Your task to perform on an android device: toggle pop-ups in chrome Image 0: 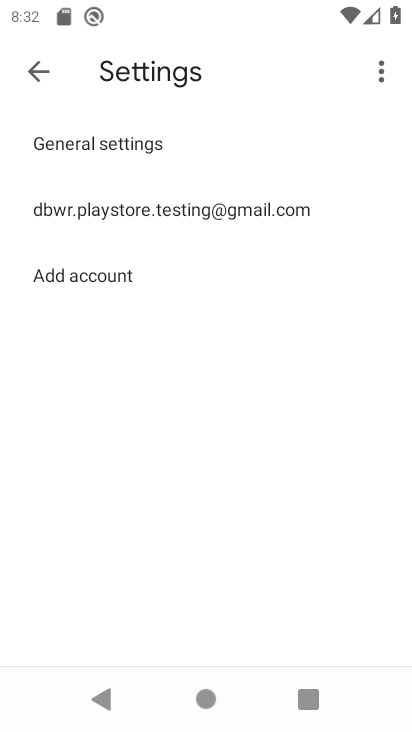
Step 0: drag from (166, 547) to (291, 218)
Your task to perform on an android device: toggle pop-ups in chrome Image 1: 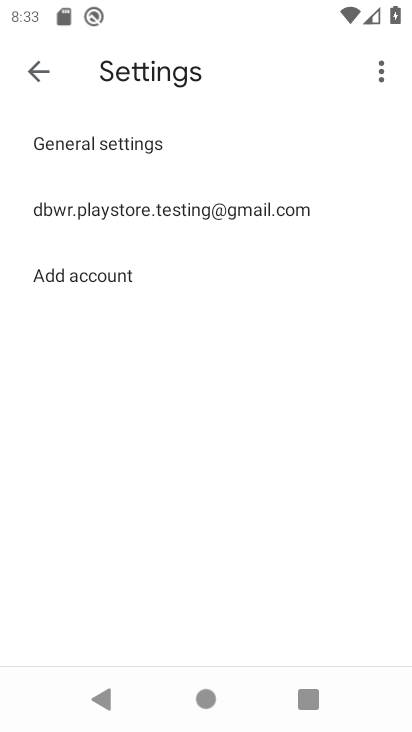
Step 1: press home button
Your task to perform on an android device: toggle pop-ups in chrome Image 2: 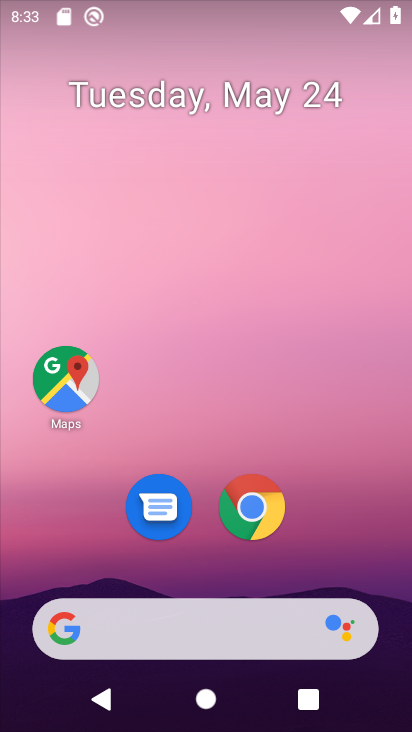
Step 2: drag from (203, 574) to (155, 152)
Your task to perform on an android device: toggle pop-ups in chrome Image 3: 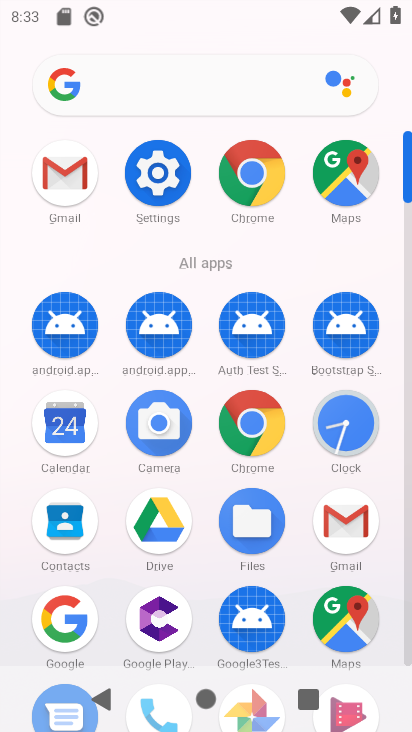
Step 3: click (255, 433)
Your task to perform on an android device: toggle pop-ups in chrome Image 4: 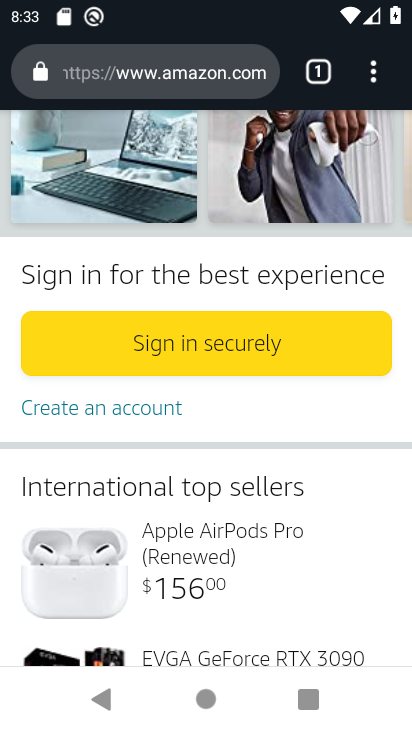
Step 4: drag from (176, 560) to (262, 170)
Your task to perform on an android device: toggle pop-ups in chrome Image 5: 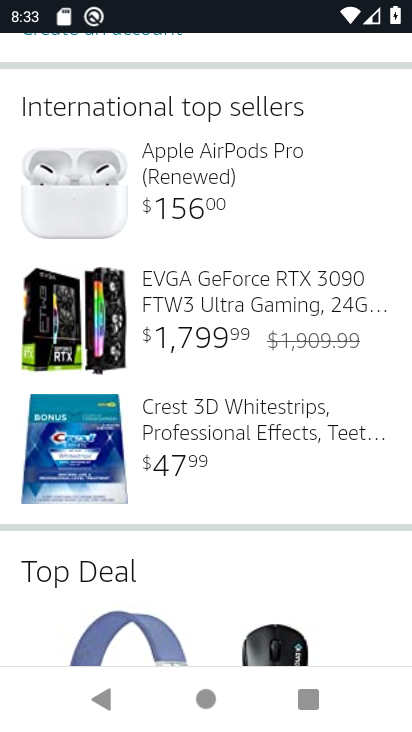
Step 5: drag from (222, 530) to (310, 17)
Your task to perform on an android device: toggle pop-ups in chrome Image 6: 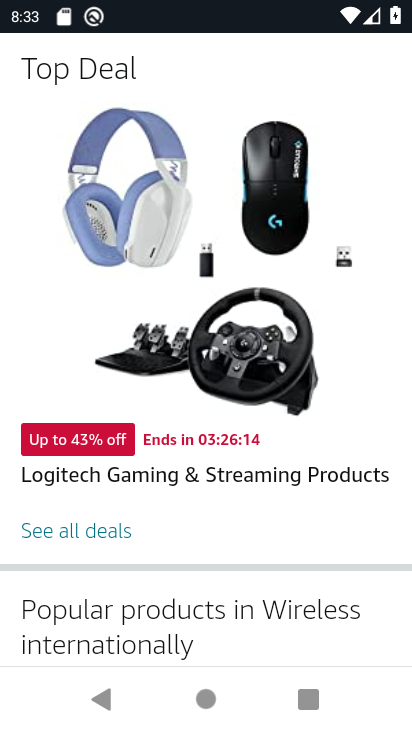
Step 6: drag from (171, 568) to (249, 235)
Your task to perform on an android device: toggle pop-ups in chrome Image 7: 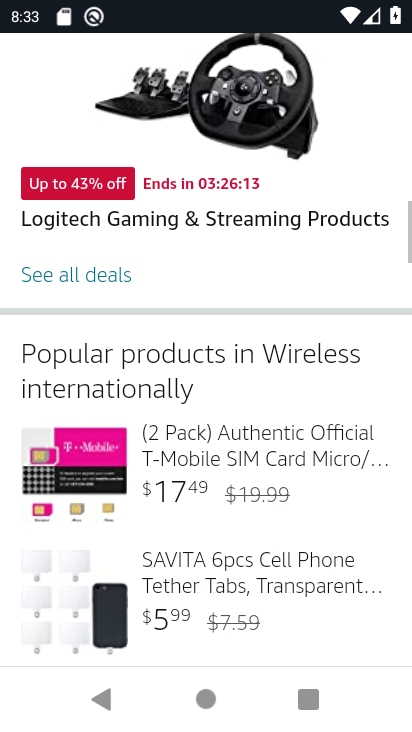
Step 7: drag from (252, 176) to (361, 694)
Your task to perform on an android device: toggle pop-ups in chrome Image 8: 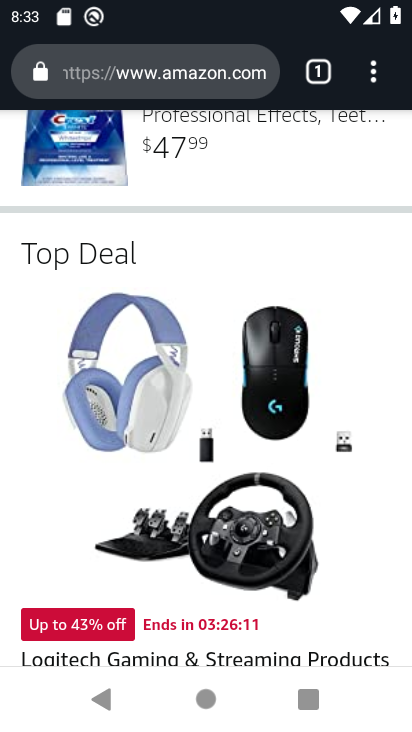
Step 8: click (387, 58)
Your task to perform on an android device: toggle pop-ups in chrome Image 9: 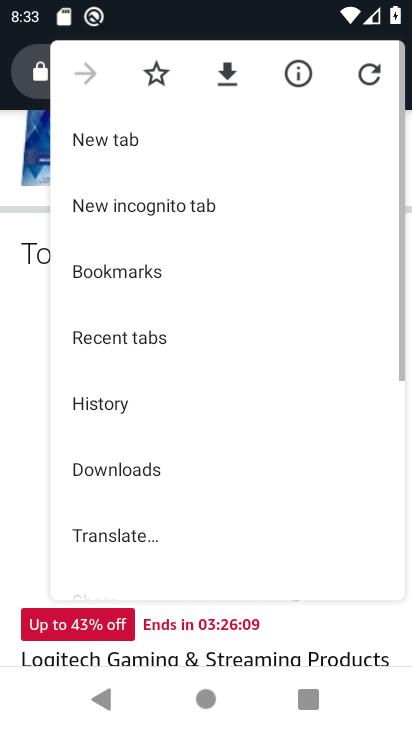
Step 9: drag from (155, 521) to (223, 25)
Your task to perform on an android device: toggle pop-ups in chrome Image 10: 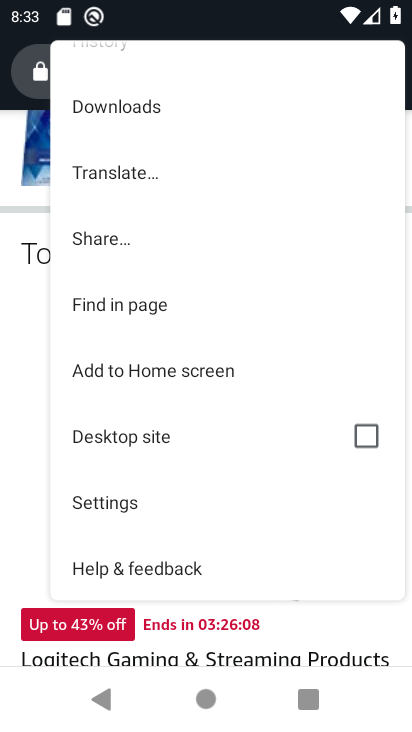
Step 10: click (119, 506)
Your task to perform on an android device: toggle pop-ups in chrome Image 11: 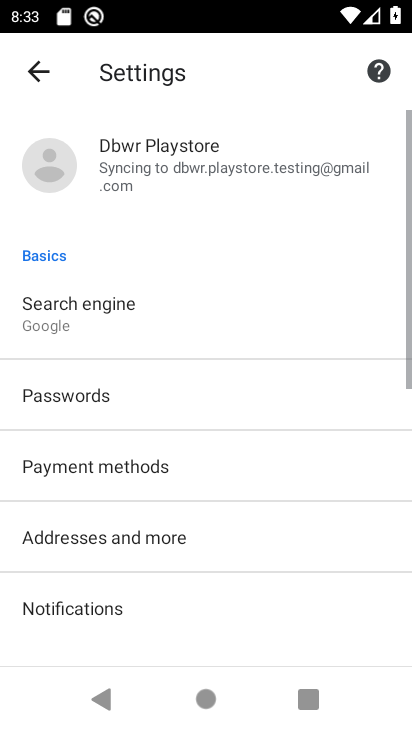
Step 11: drag from (178, 490) to (292, 79)
Your task to perform on an android device: toggle pop-ups in chrome Image 12: 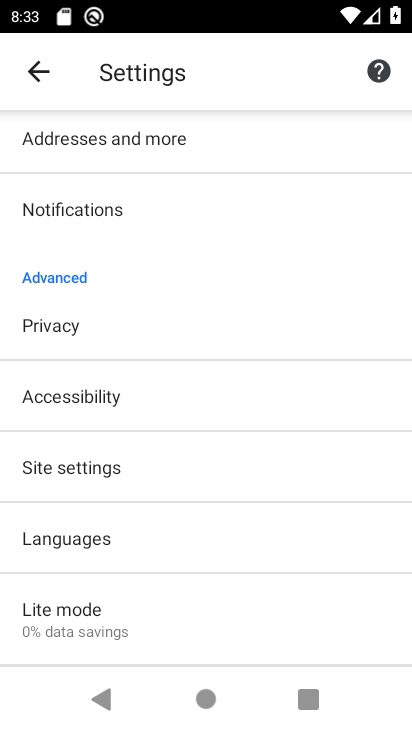
Step 12: click (96, 466)
Your task to perform on an android device: toggle pop-ups in chrome Image 13: 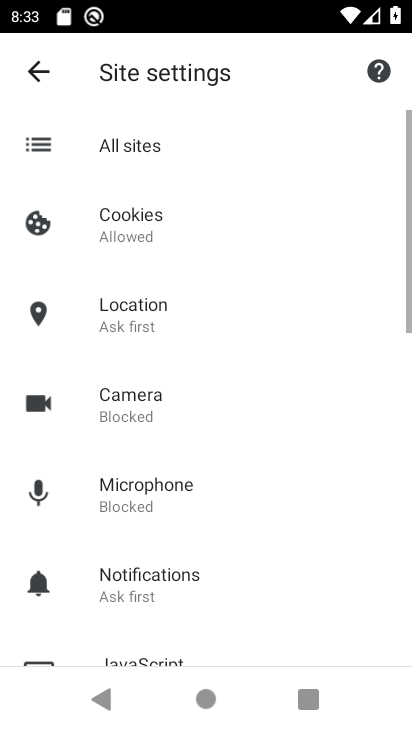
Step 13: drag from (137, 572) to (288, 2)
Your task to perform on an android device: toggle pop-ups in chrome Image 14: 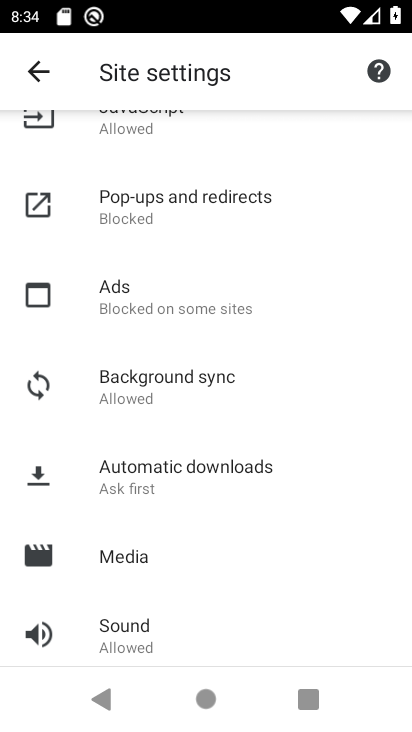
Step 14: drag from (231, 203) to (243, 649)
Your task to perform on an android device: toggle pop-ups in chrome Image 15: 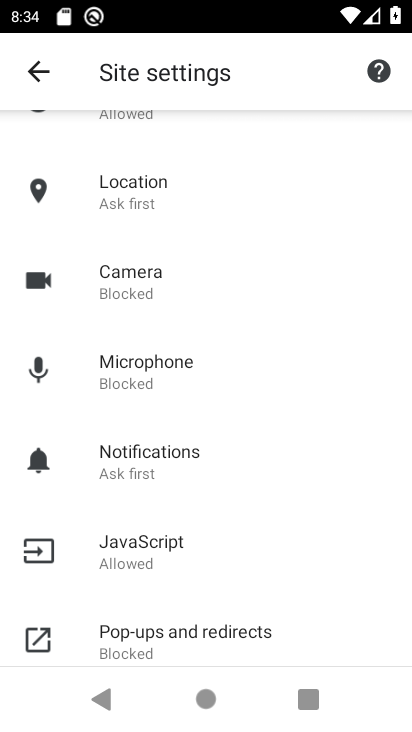
Step 15: drag from (234, 272) to (293, 668)
Your task to perform on an android device: toggle pop-ups in chrome Image 16: 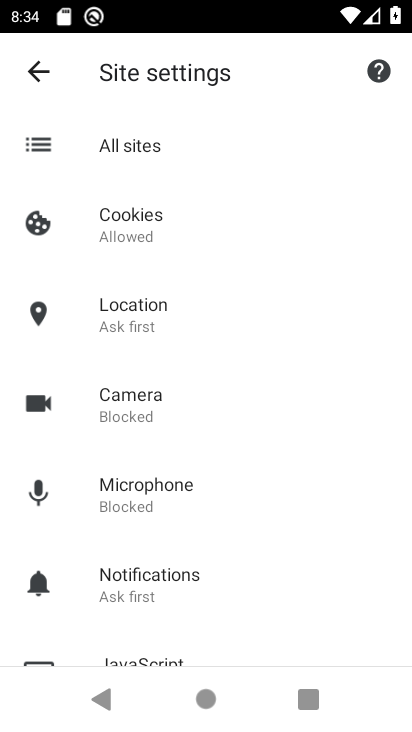
Step 16: drag from (203, 570) to (311, 26)
Your task to perform on an android device: toggle pop-ups in chrome Image 17: 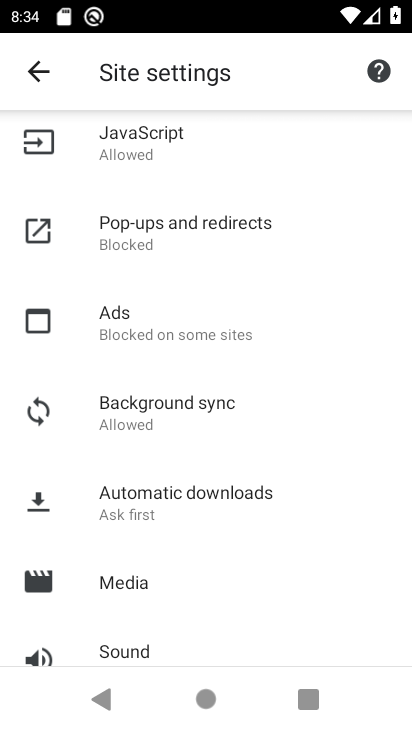
Step 17: click (172, 228)
Your task to perform on an android device: toggle pop-ups in chrome Image 18: 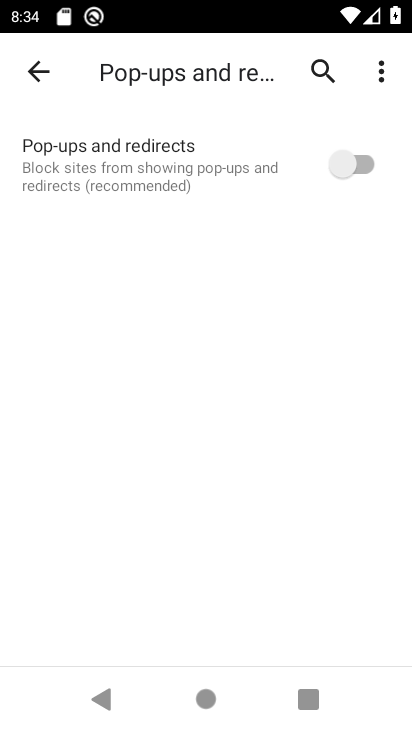
Step 18: click (349, 168)
Your task to perform on an android device: toggle pop-ups in chrome Image 19: 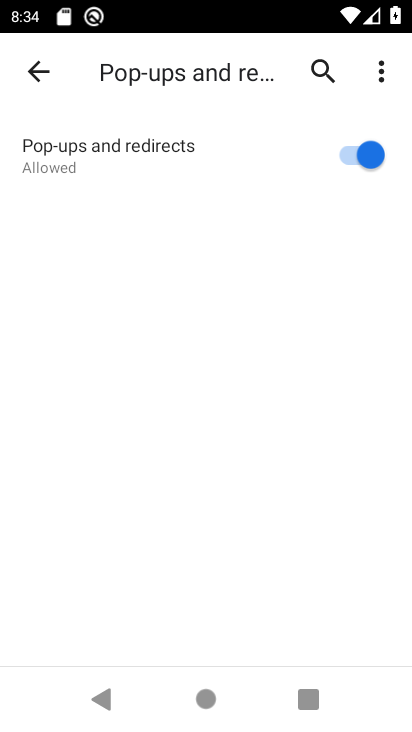
Step 19: task complete